Your task to perform on an android device: change notifications settings Image 0: 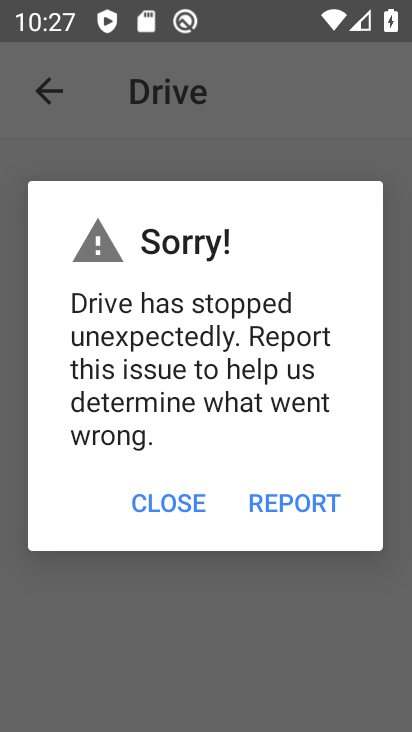
Step 0: press home button
Your task to perform on an android device: change notifications settings Image 1: 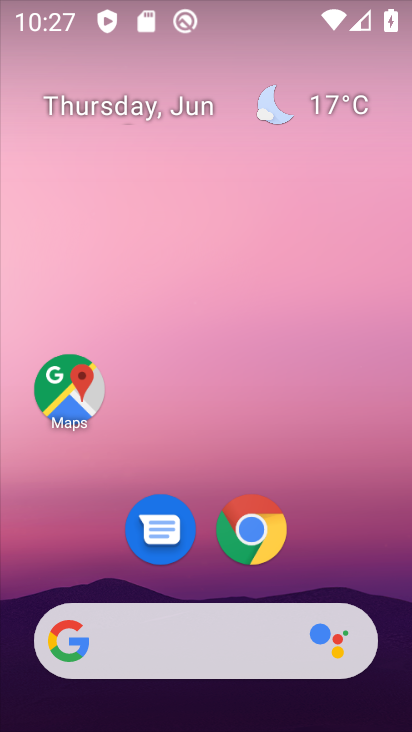
Step 1: drag from (183, 505) to (162, 10)
Your task to perform on an android device: change notifications settings Image 2: 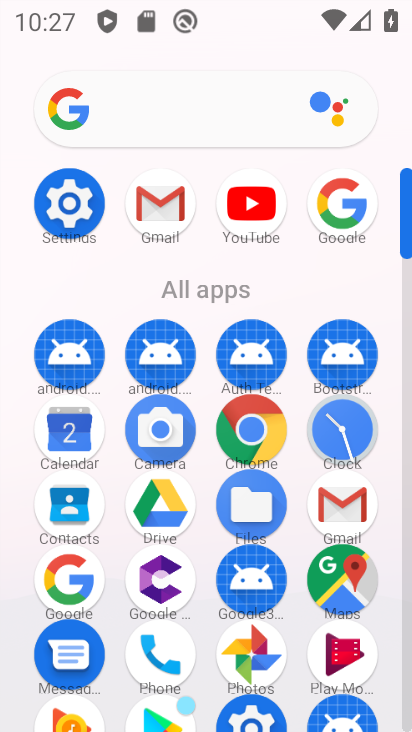
Step 2: click (68, 220)
Your task to perform on an android device: change notifications settings Image 3: 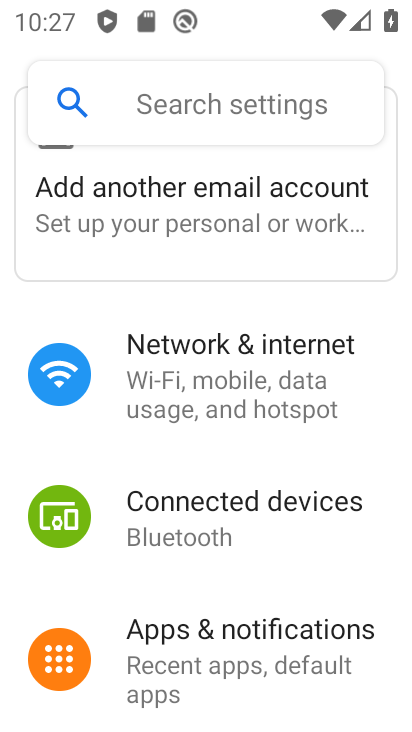
Step 3: click (212, 677)
Your task to perform on an android device: change notifications settings Image 4: 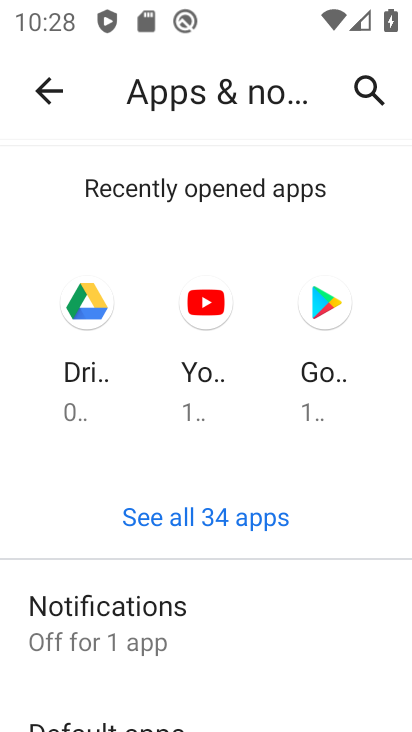
Step 4: click (113, 614)
Your task to perform on an android device: change notifications settings Image 5: 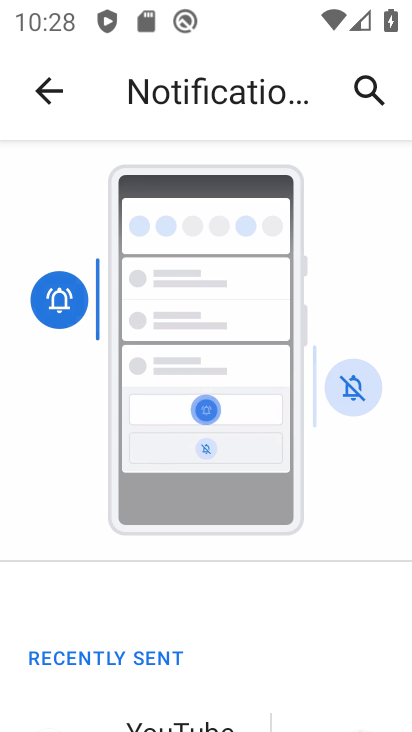
Step 5: task complete